Your task to perform on an android device: open wifi settings Image 0: 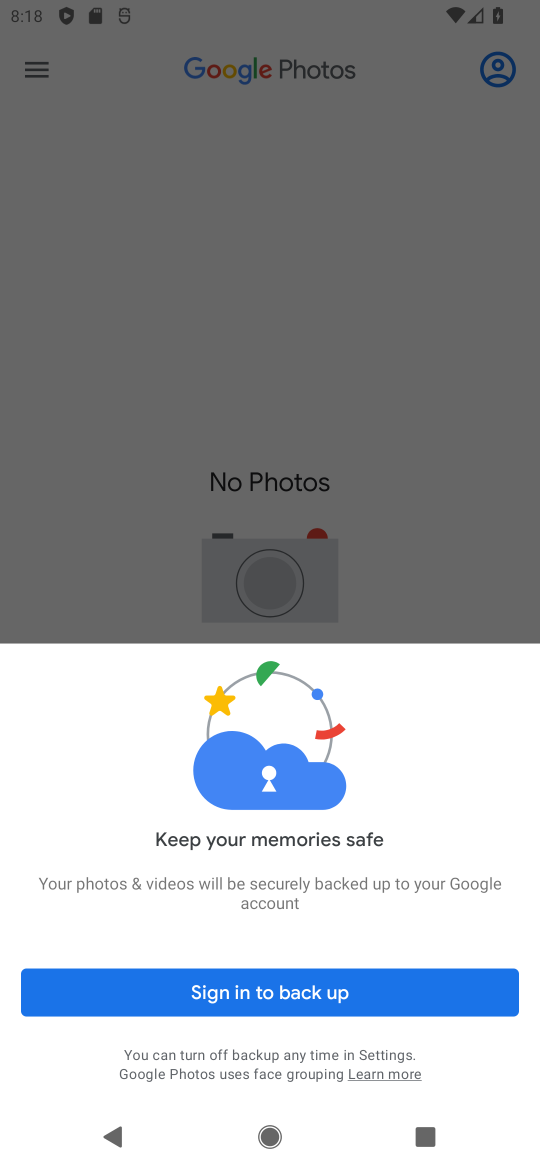
Step 0: press home button
Your task to perform on an android device: open wifi settings Image 1: 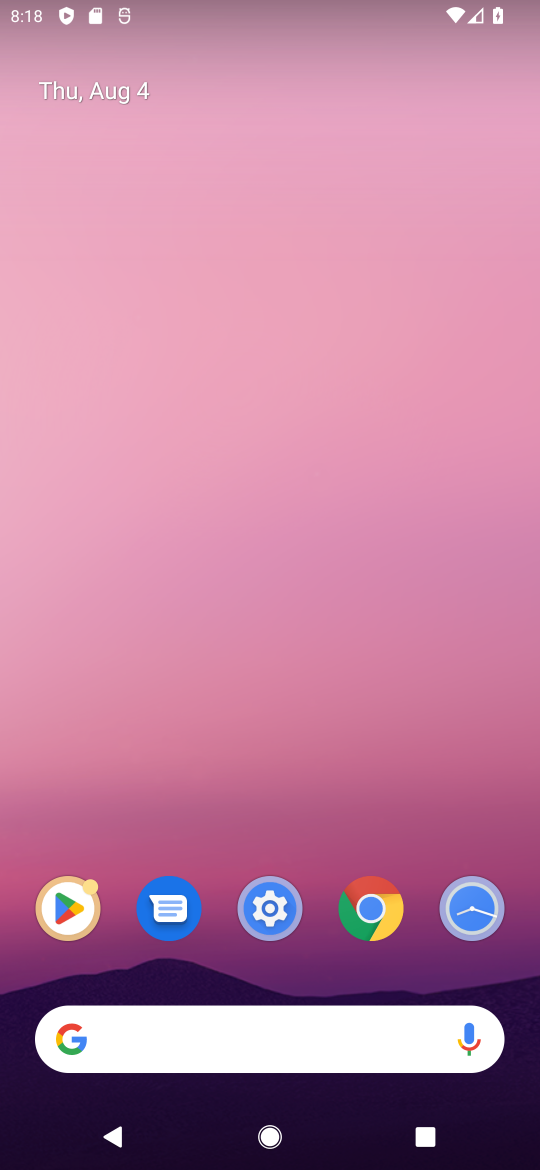
Step 1: drag from (188, 976) to (250, 359)
Your task to perform on an android device: open wifi settings Image 2: 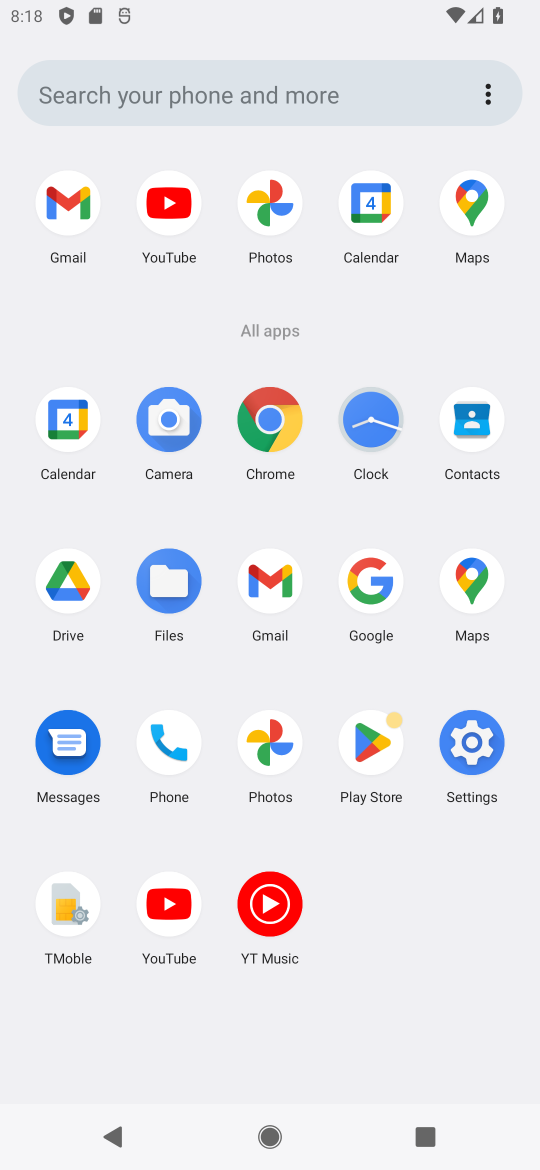
Step 2: click (461, 727)
Your task to perform on an android device: open wifi settings Image 3: 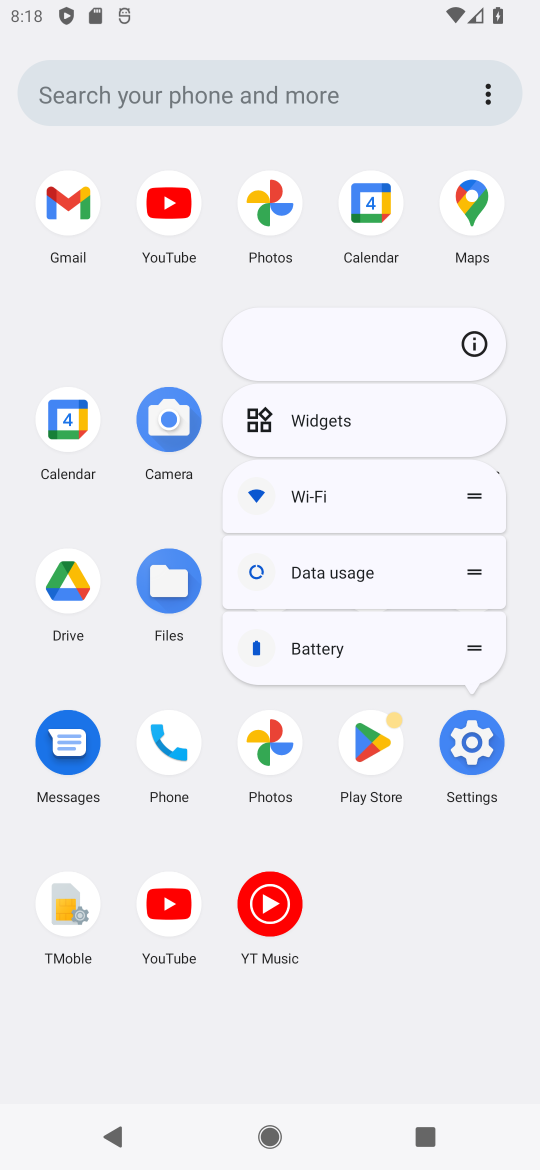
Step 3: click (474, 739)
Your task to perform on an android device: open wifi settings Image 4: 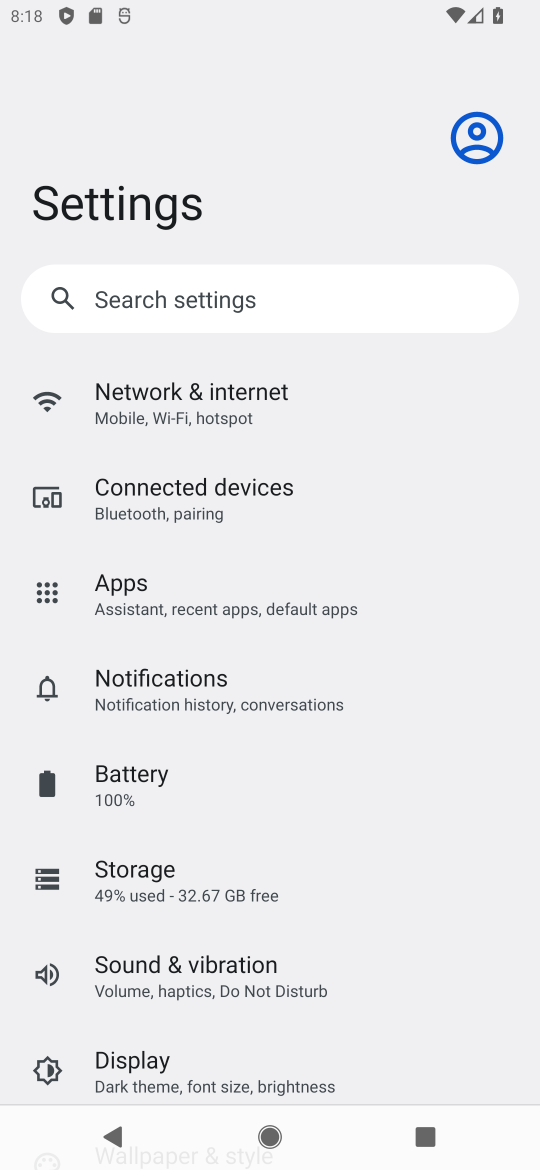
Step 4: click (241, 414)
Your task to perform on an android device: open wifi settings Image 5: 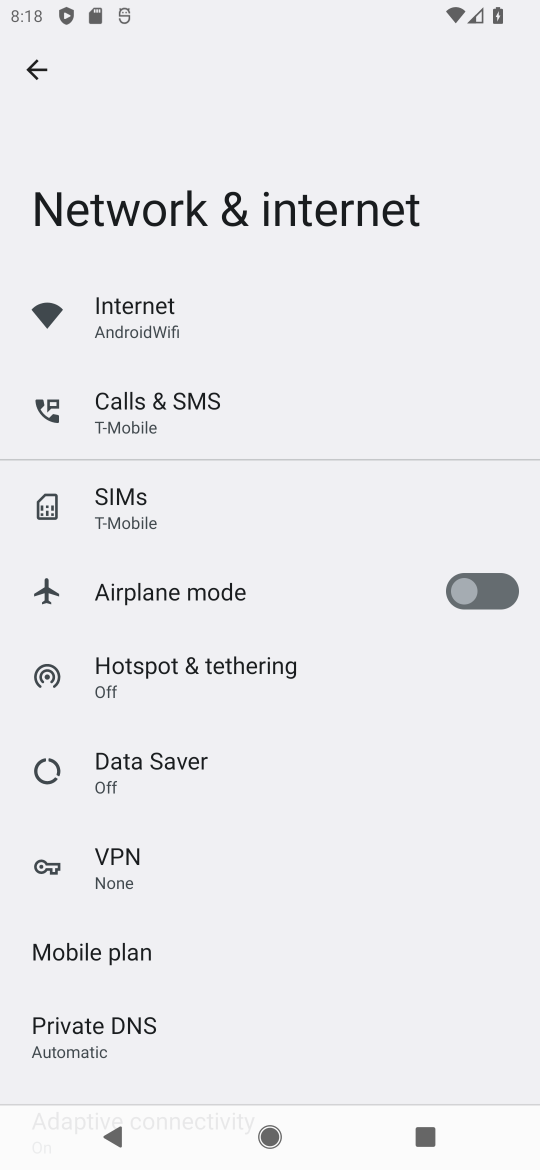
Step 5: click (184, 308)
Your task to perform on an android device: open wifi settings Image 6: 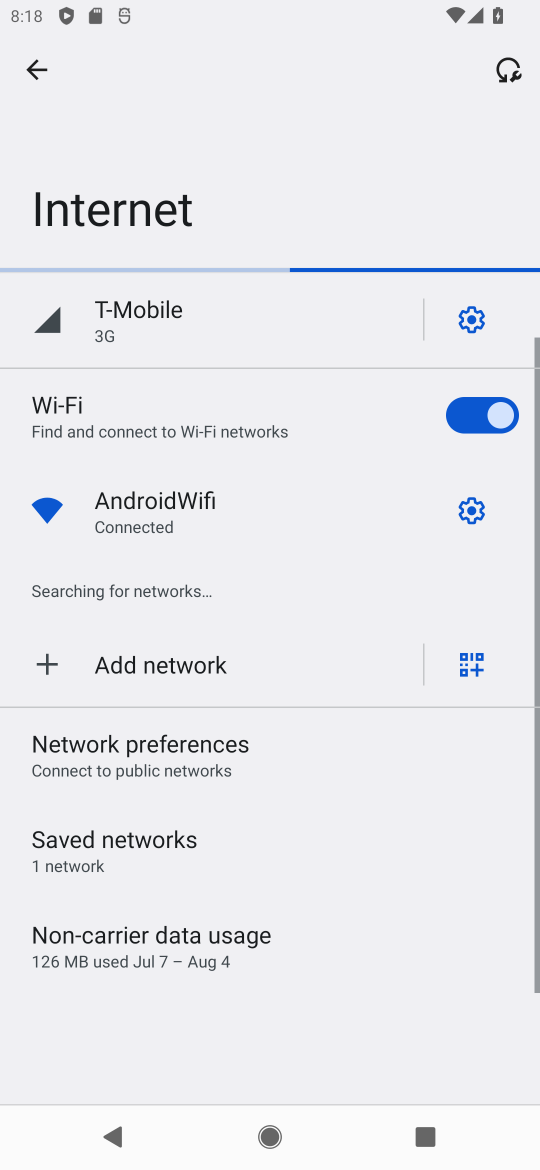
Step 6: task complete